Your task to perform on an android device: Open the web browser Image 0: 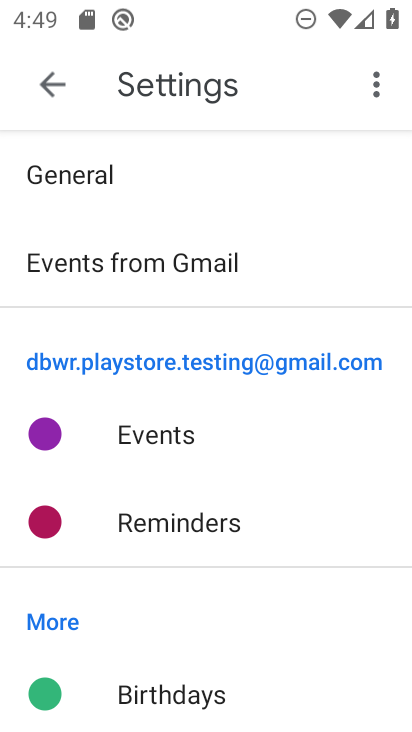
Step 0: press home button
Your task to perform on an android device: Open the web browser Image 1: 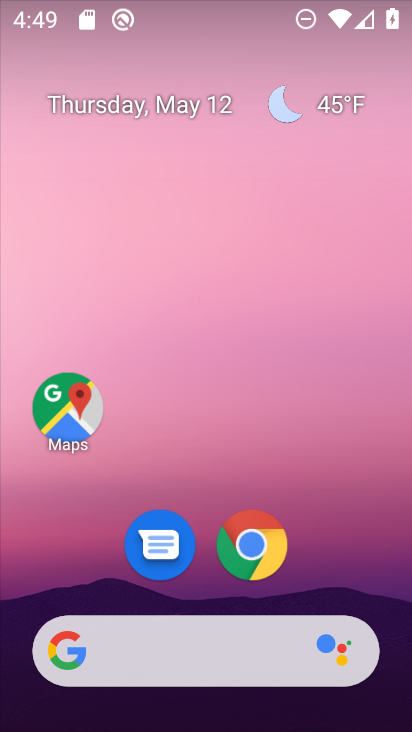
Step 1: click (253, 544)
Your task to perform on an android device: Open the web browser Image 2: 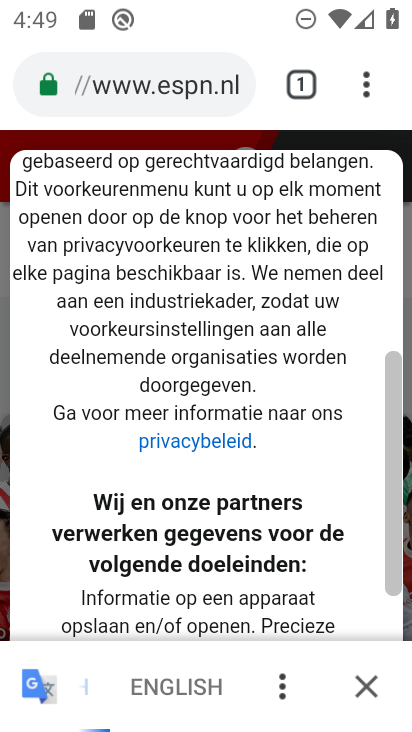
Step 2: task complete